Your task to perform on an android device: find which apps use the phone's location Image 0: 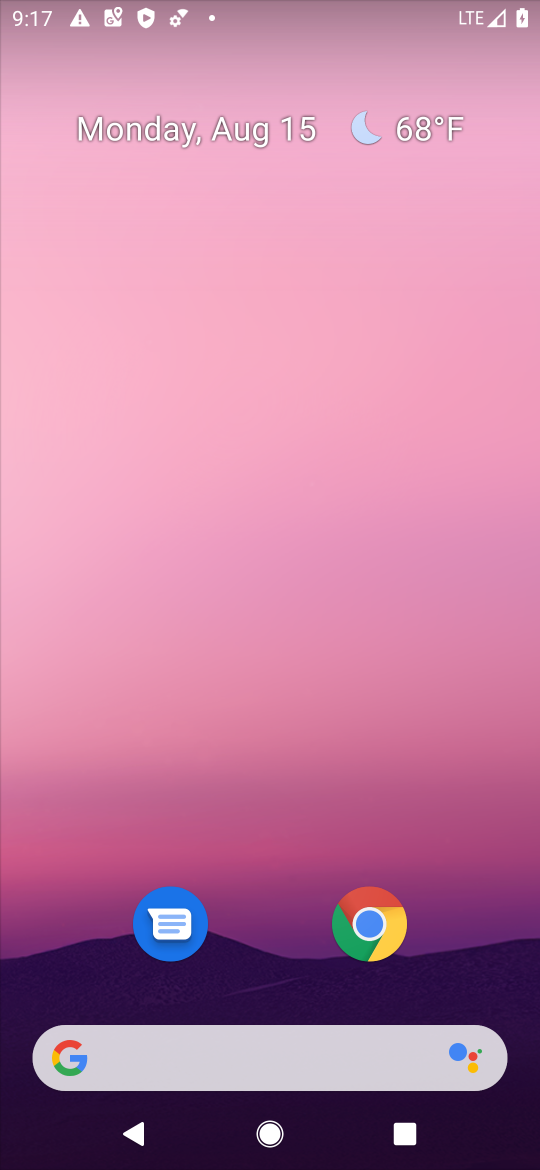
Step 0: drag from (513, 986) to (457, 268)
Your task to perform on an android device: find which apps use the phone's location Image 1: 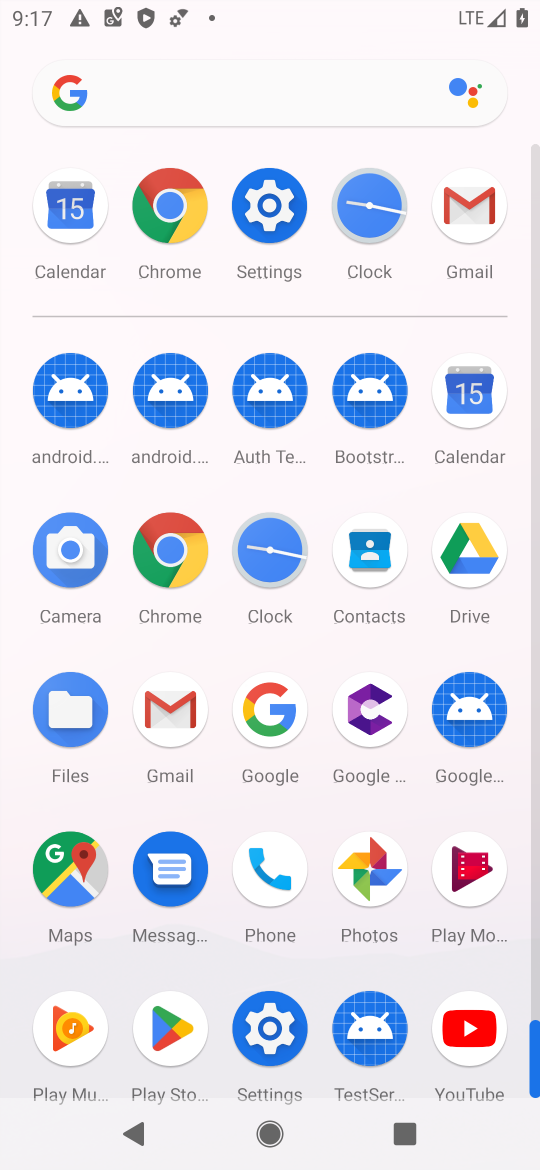
Step 1: click (277, 1030)
Your task to perform on an android device: find which apps use the phone's location Image 2: 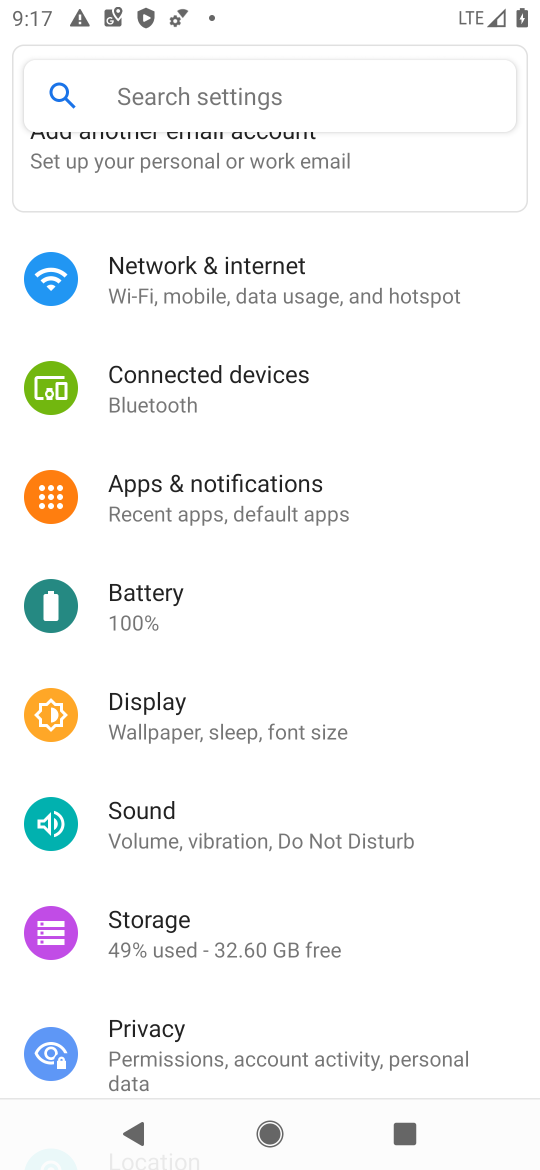
Step 2: drag from (426, 951) to (382, 438)
Your task to perform on an android device: find which apps use the phone's location Image 3: 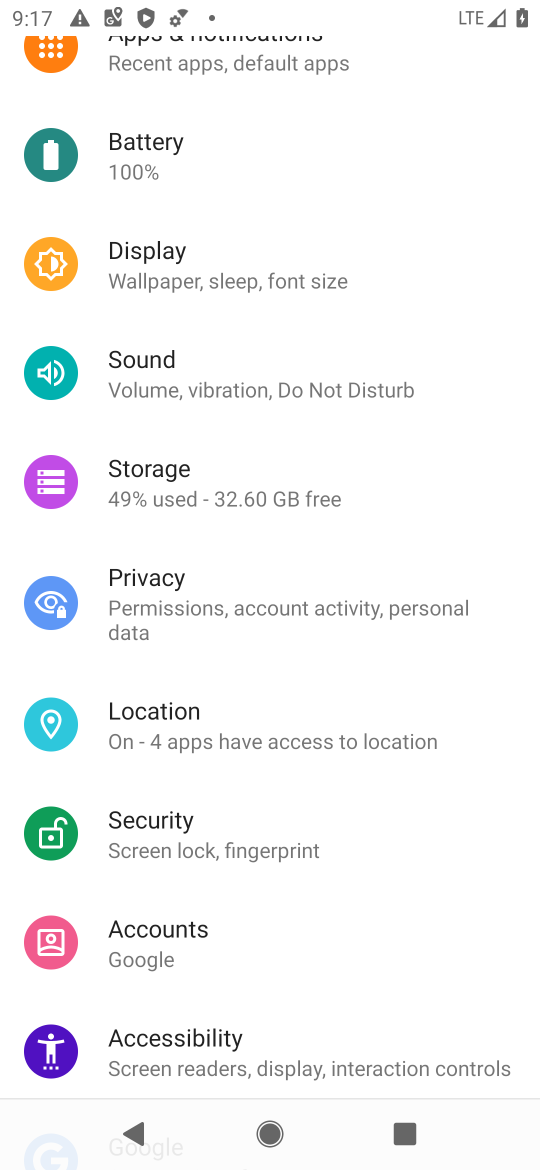
Step 3: click (163, 716)
Your task to perform on an android device: find which apps use the phone's location Image 4: 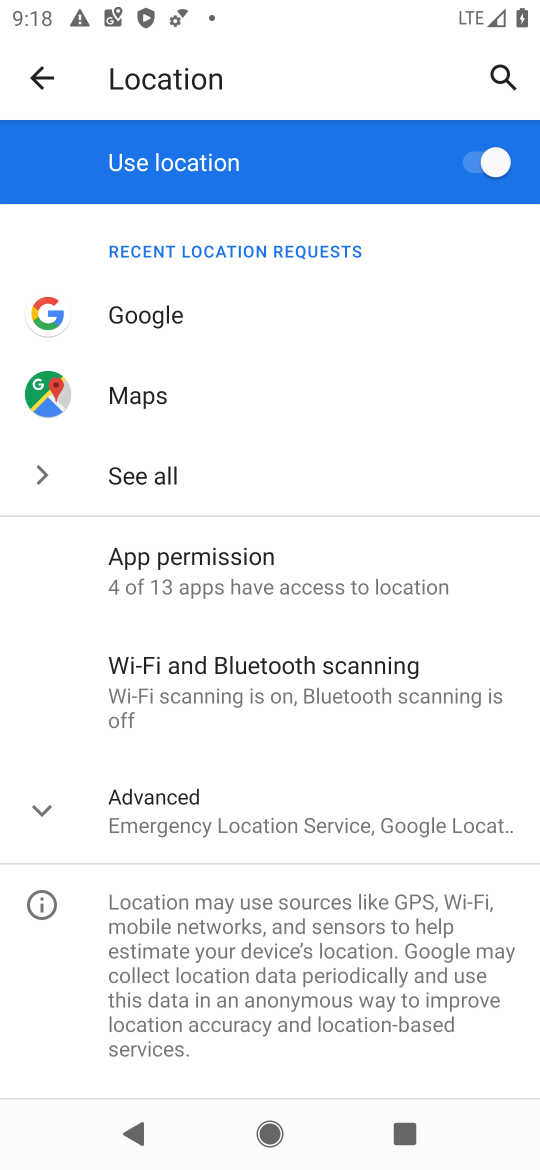
Step 4: click (136, 585)
Your task to perform on an android device: find which apps use the phone's location Image 5: 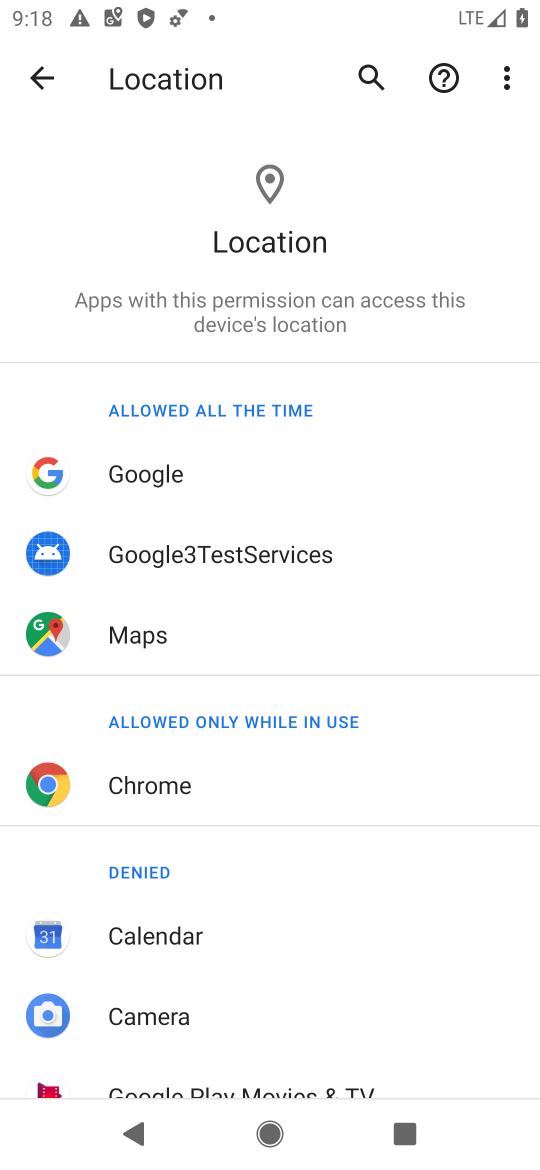
Step 5: task complete